Your task to perform on an android device: turn on improve location accuracy Image 0: 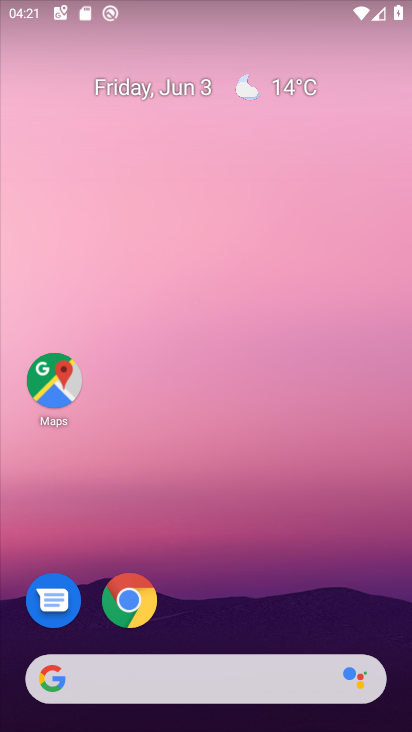
Step 0: drag from (272, 434) to (297, 69)
Your task to perform on an android device: turn on improve location accuracy Image 1: 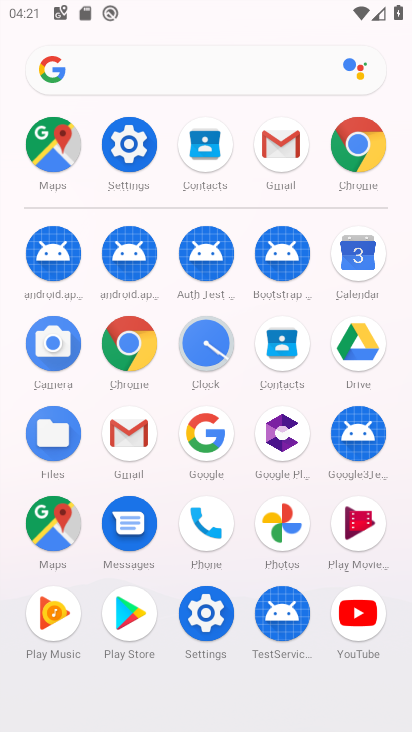
Step 1: click (125, 136)
Your task to perform on an android device: turn on improve location accuracy Image 2: 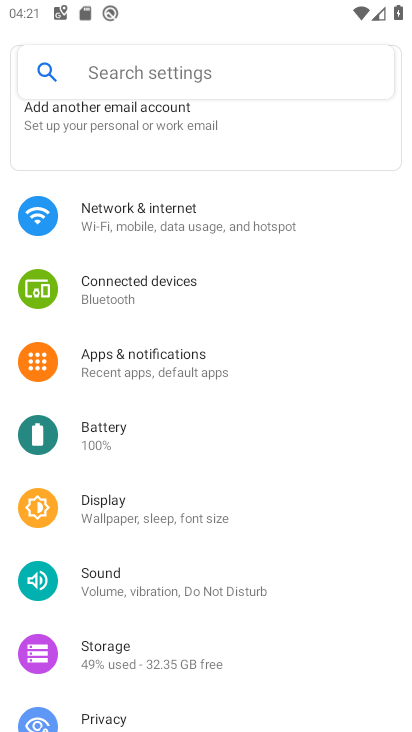
Step 2: drag from (202, 612) to (224, 211)
Your task to perform on an android device: turn on improve location accuracy Image 3: 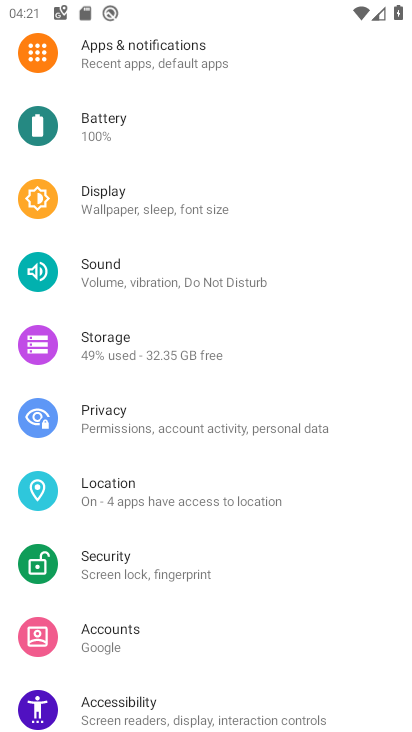
Step 3: click (122, 479)
Your task to perform on an android device: turn on improve location accuracy Image 4: 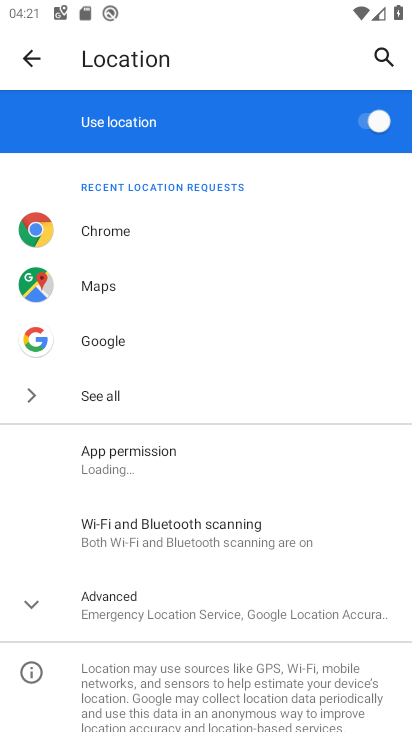
Step 4: click (128, 602)
Your task to perform on an android device: turn on improve location accuracy Image 5: 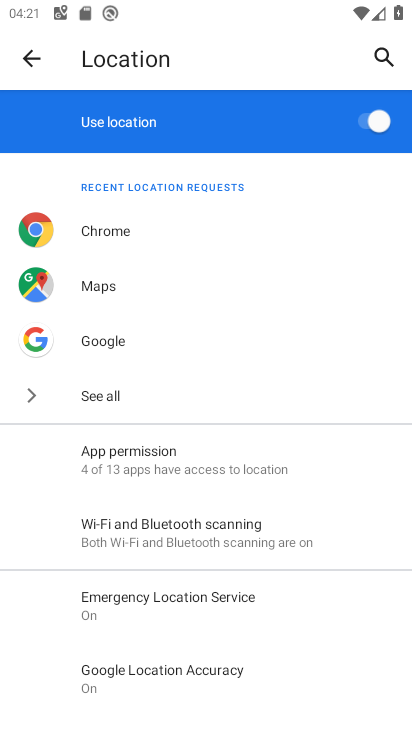
Step 5: click (204, 652)
Your task to perform on an android device: turn on improve location accuracy Image 6: 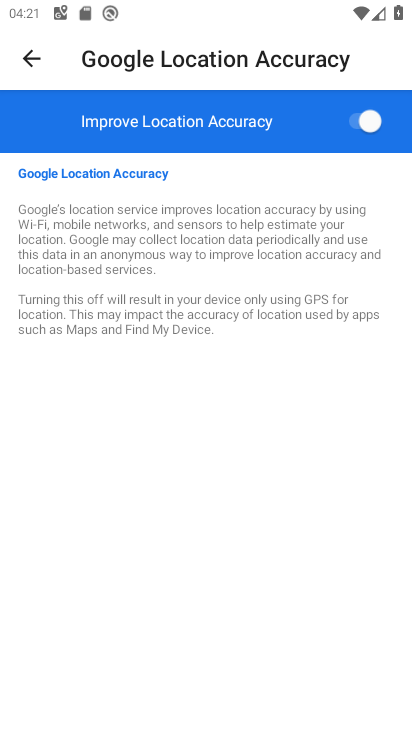
Step 6: task complete